Your task to perform on an android device: Go to Google Image 0: 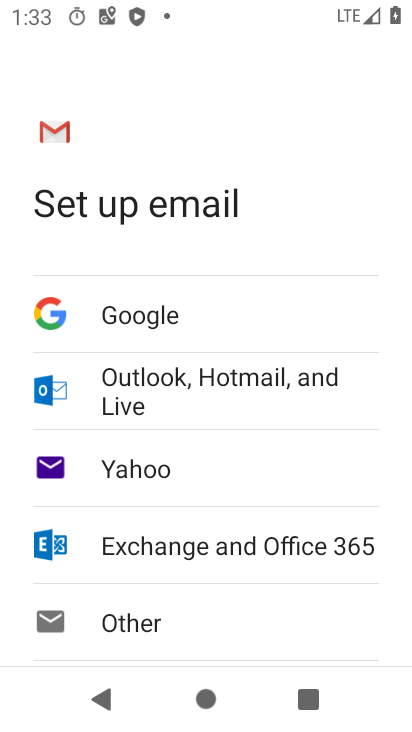
Step 0: press home button
Your task to perform on an android device: Go to Google Image 1: 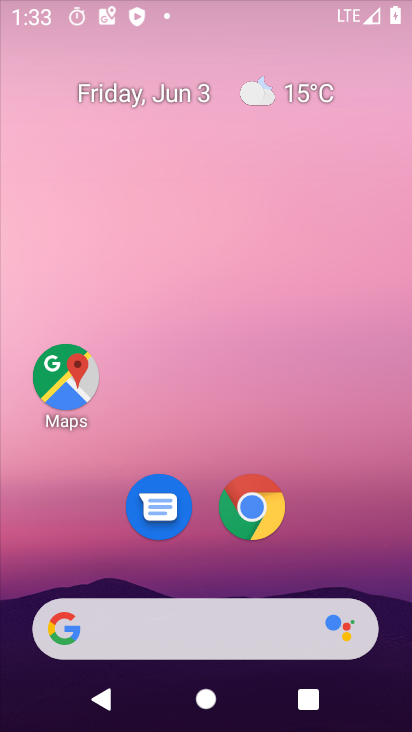
Step 1: drag from (392, 611) to (261, 80)
Your task to perform on an android device: Go to Google Image 2: 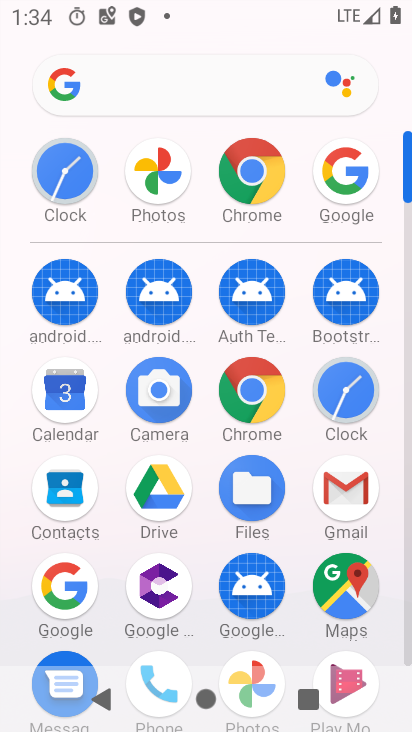
Step 2: click (75, 585)
Your task to perform on an android device: Go to Google Image 3: 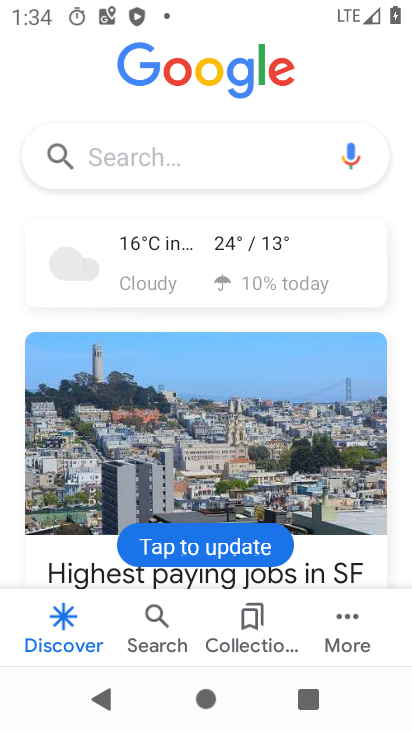
Step 3: task complete